Your task to perform on an android device: open app "VLC for Android" (install if not already installed) Image 0: 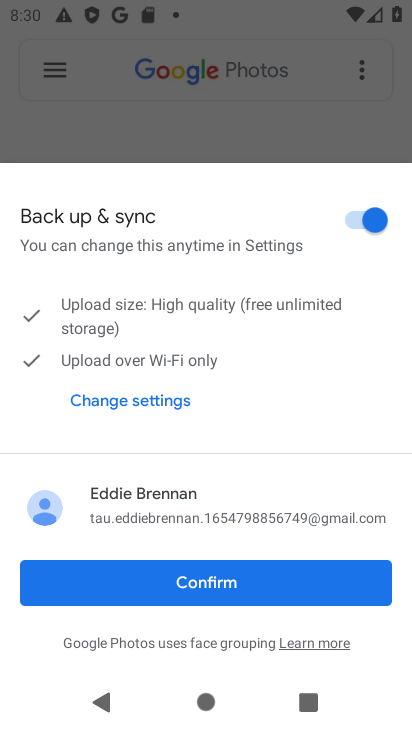
Step 0: press home button
Your task to perform on an android device: open app "VLC for Android" (install if not already installed) Image 1: 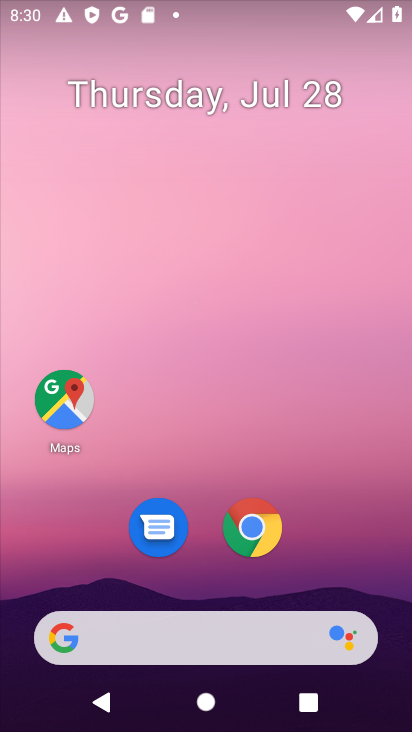
Step 1: click (246, 629)
Your task to perform on an android device: open app "VLC for Android" (install if not already installed) Image 2: 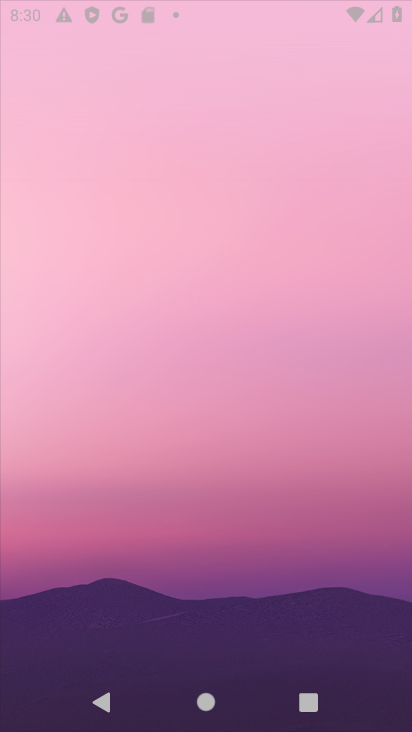
Step 2: click (246, 629)
Your task to perform on an android device: open app "VLC for Android" (install if not already installed) Image 3: 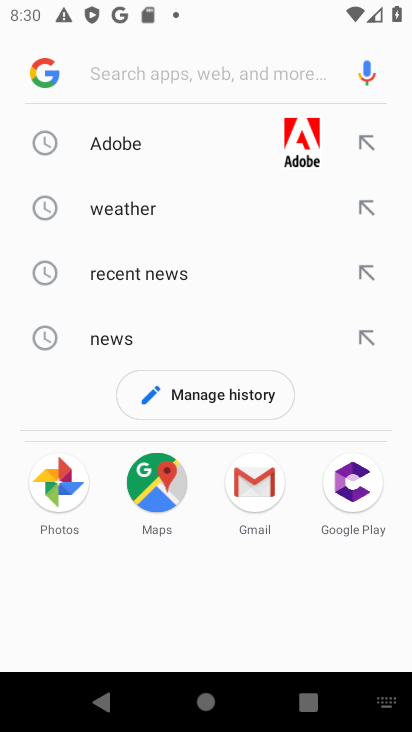
Step 3: type "vlc apk"
Your task to perform on an android device: open app "VLC for Android" (install if not already installed) Image 4: 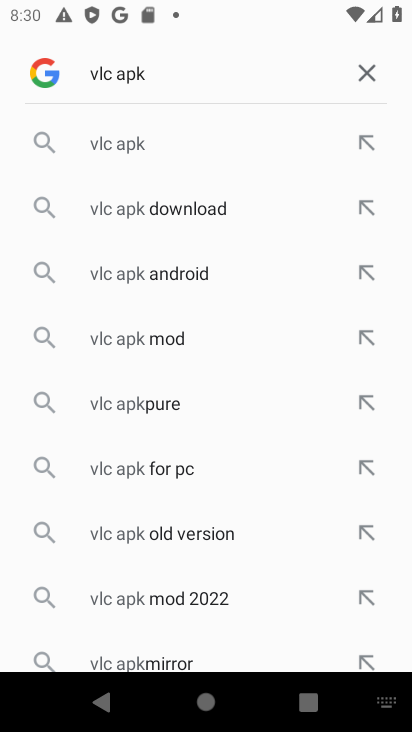
Step 4: click (150, 157)
Your task to perform on an android device: open app "VLC for Android" (install if not already installed) Image 5: 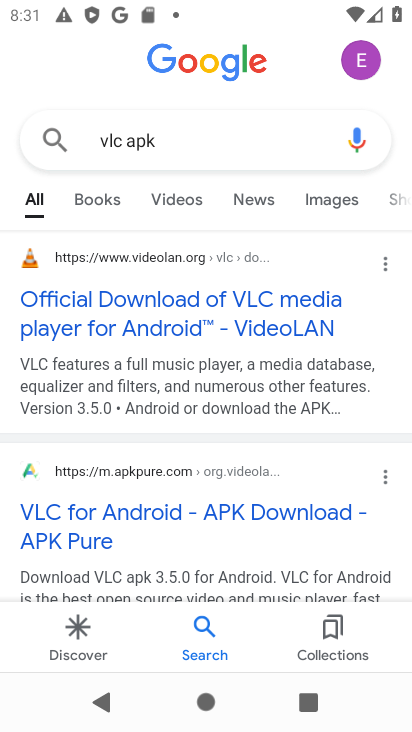
Step 5: drag from (199, 514) to (206, 166)
Your task to perform on an android device: open app "VLC for Android" (install if not already installed) Image 6: 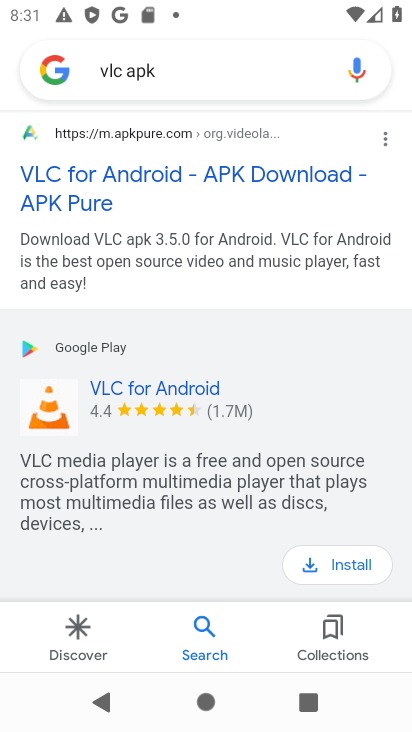
Step 6: click (313, 554)
Your task to perform on an android device: open app "VLC for Android" (install if not already installed) Image 7: 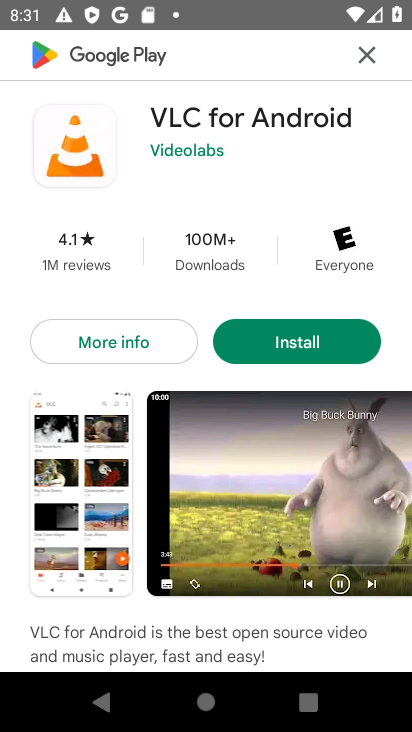
Step 7: click (306, 342)
Your task to perform on an android device: open app "VLC for Android" (install if not already installed) Image 8: 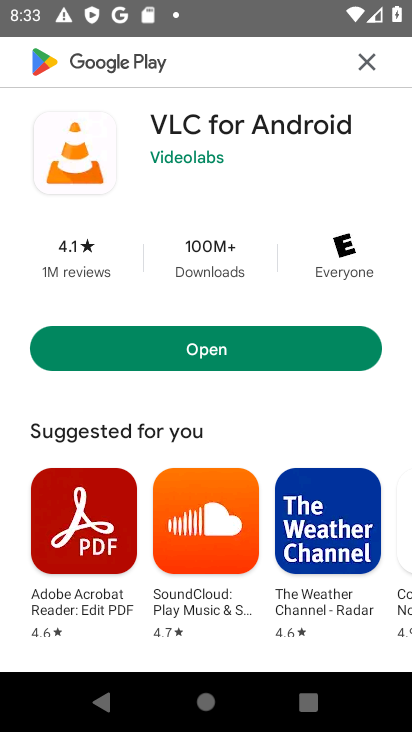
Step 8: task complete